Your task to perform on an android device: Open eBay Image 0: 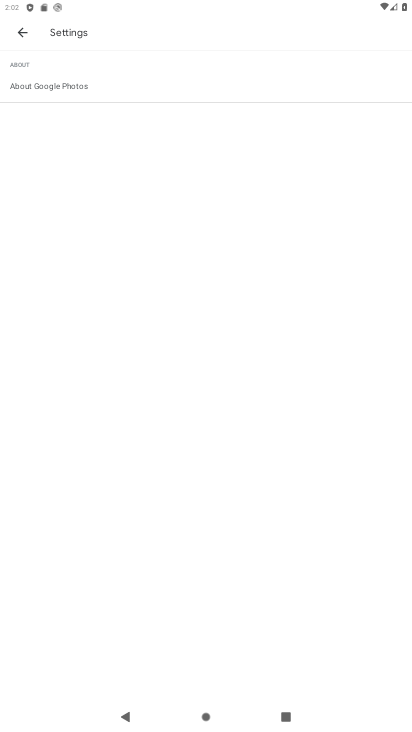
Step 0: press home button
Your task to perform on an android device: Open eBay Image 1: 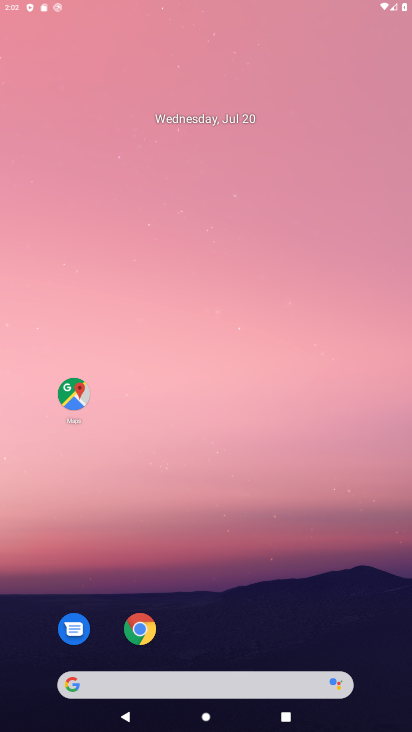
Step 1: click (106, 643)
Your task to perform on an android device: Open eBay Image 2: 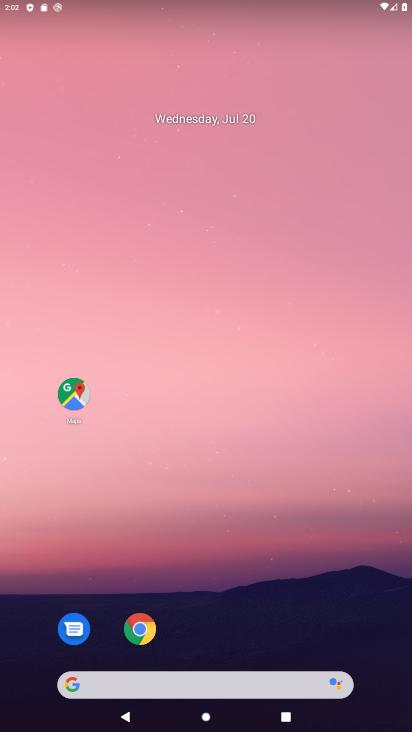
Step 2: click (135, 624)
Your task to perform on an android device: Open eBay Image 3: 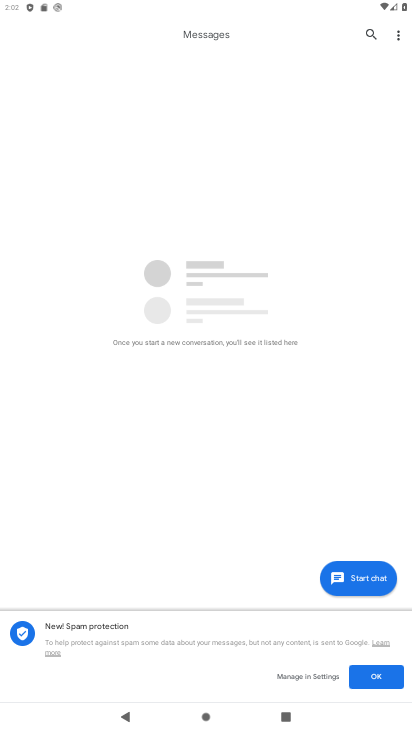
Step 3: click (363, 669)
Your task to perform on an android device: Open eBay Image 4: 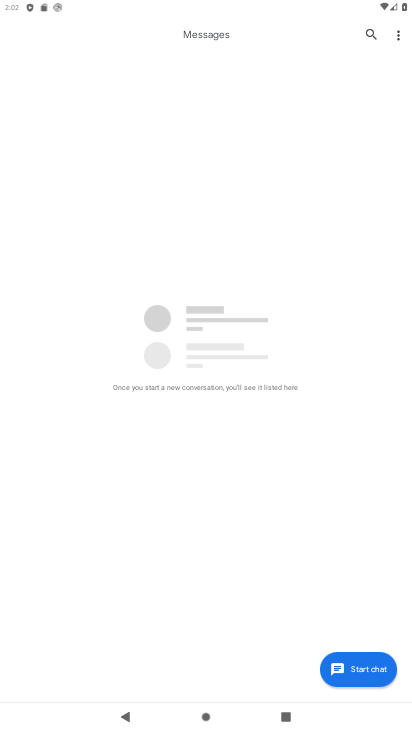
Step 4: click (132, 715)
Your task to perform on an android device: Open eBay Image 5: 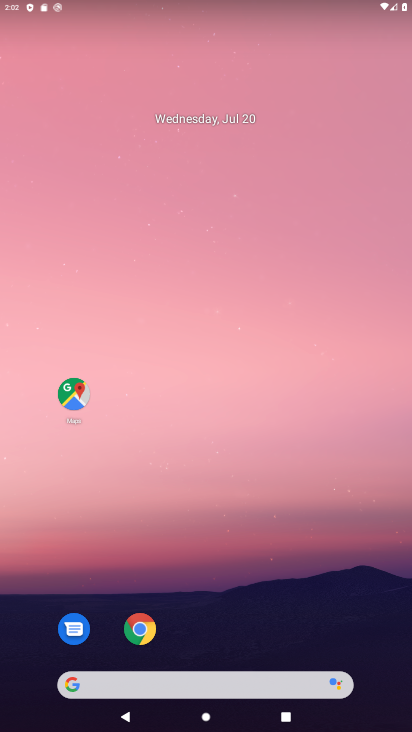
Step 5: click (155, 641)
Your task to perform on an android device: Open eBay Image 6: 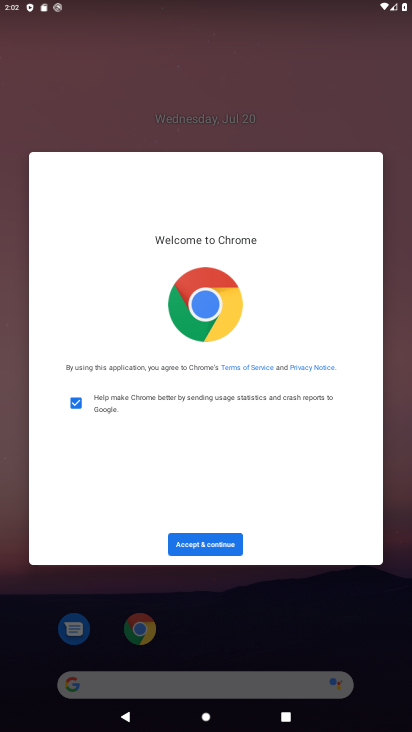
Step 6: click (192, 545)
Your task to perform on an android device: Open eBay Image 7: 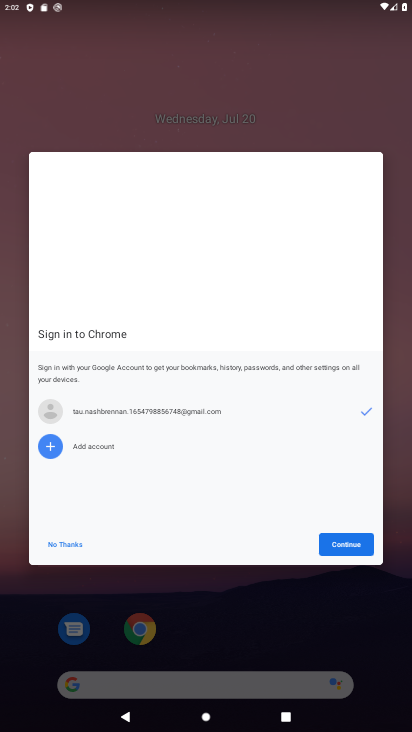
Step 7: click (349, 537)
Your task to perform on an android device: Open eBay Image 8: 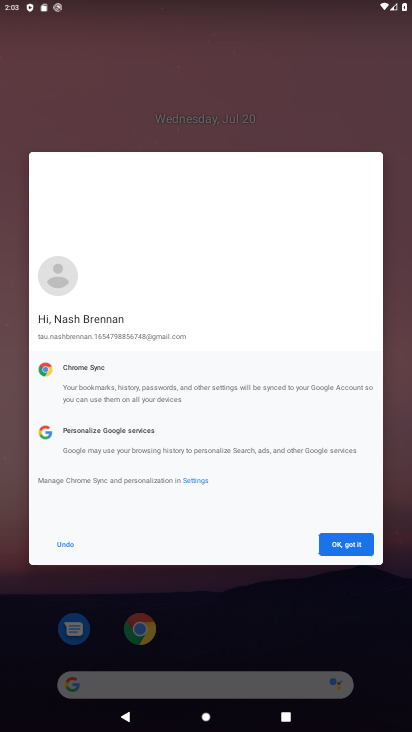
Step 8: click (349, 534)
Your task to perform on an android device: Open eBay Image 9: 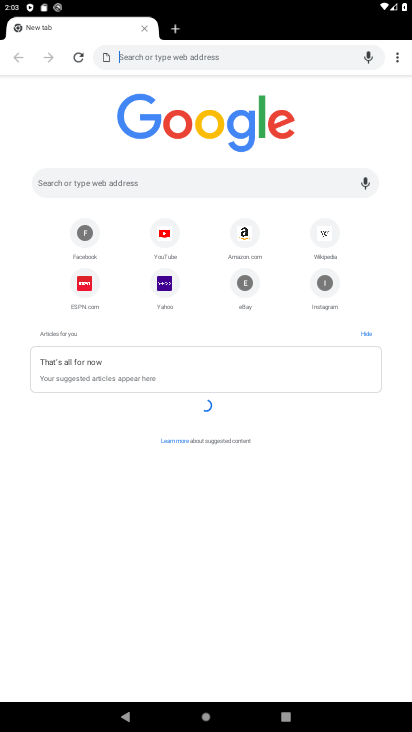
Step 9: click (193, 53)
Your task to perform on an android device: Open eBay Image 10: 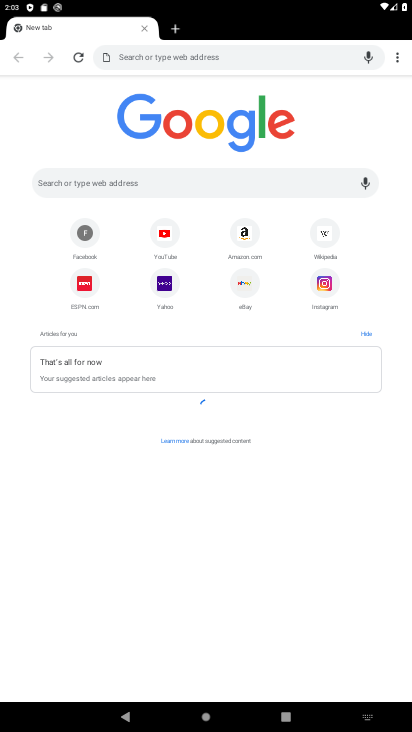
Step 10: click (241, 282)
Your task to perform on an android device: Open eBay Image 11: 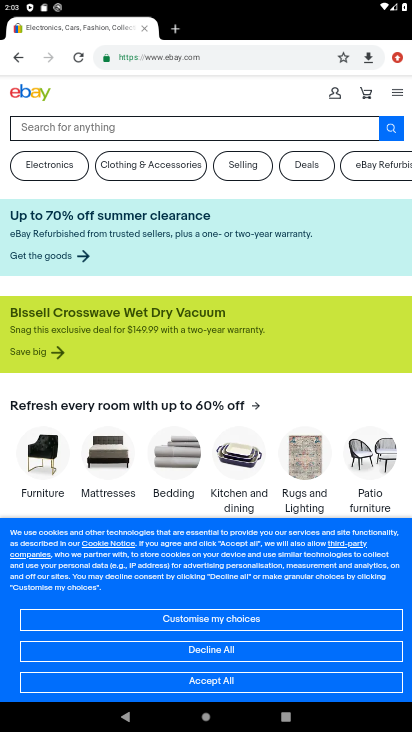
Step 11: task complete